Your task to perform on an android device: open device folders in google photos Image 0: 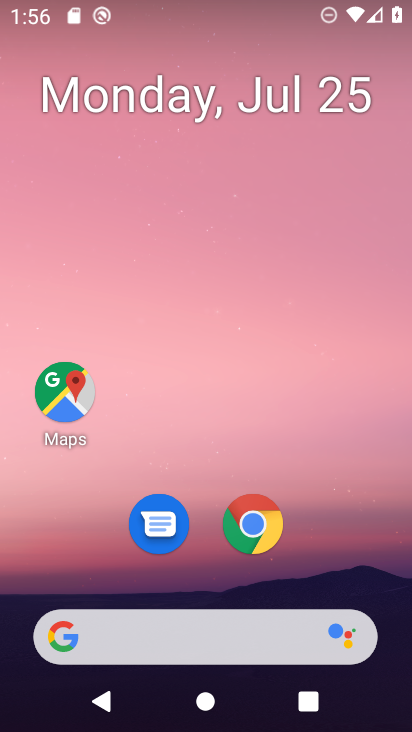
Step 0: drag from (203, 569) to (243, 176)
Your task to perform on an android device: open device folders in google photos Image 1: 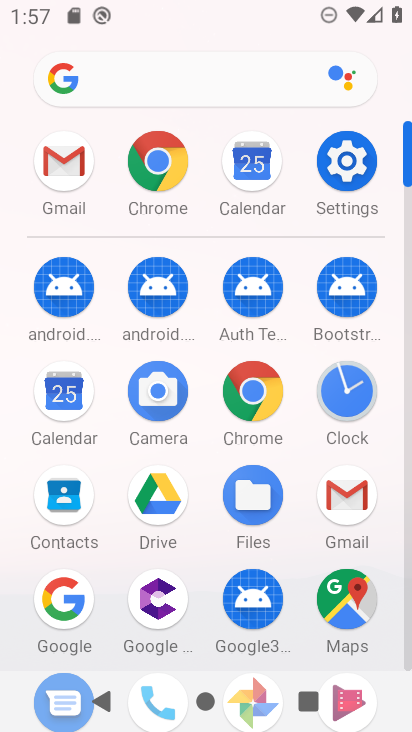
Step 1: drag from (199, 553) to (355, 81)
Your task to perform on an android device: open device folders in google photos Image 2: 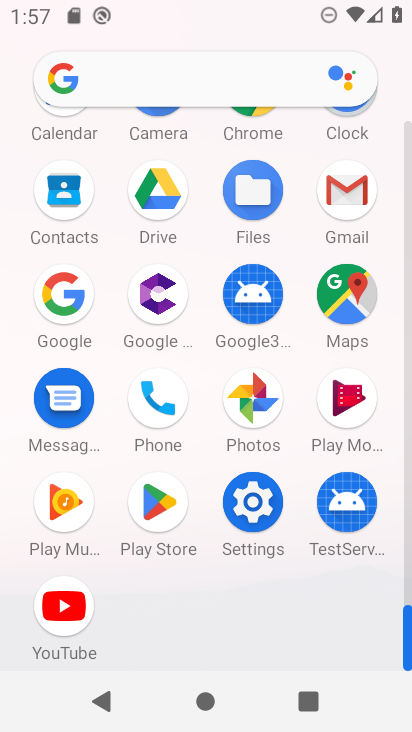
Step 2: click (252, 395)
Your task to perform on an android device: open device folders in google photos Image 3: 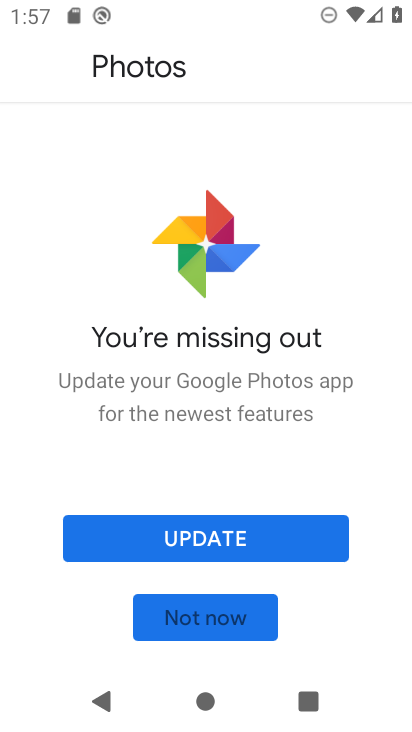
Step 3: click (182, 607)
Your task to perform on an android device: open device folders in google photos Image 4: 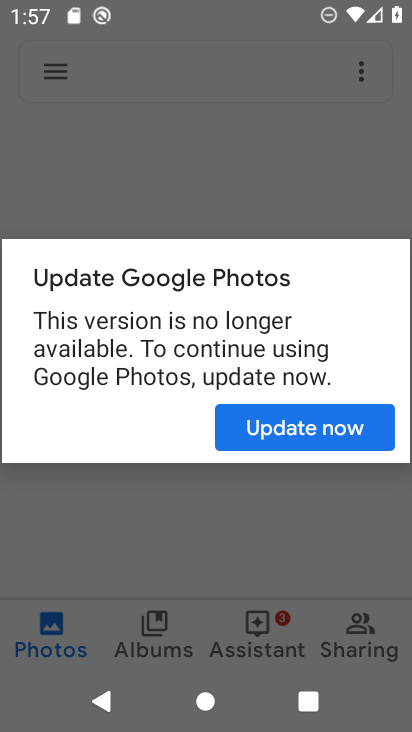
Step 4: click (279, 423)
Your task to perform on an android device: open device folders in google photos Image 5: 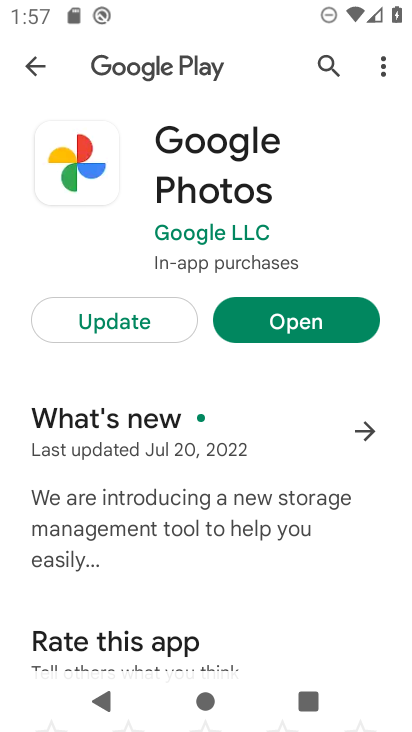
Step 5: click (302, 324)
Your task to perform on an android device: open device folders in google photos Image 6: 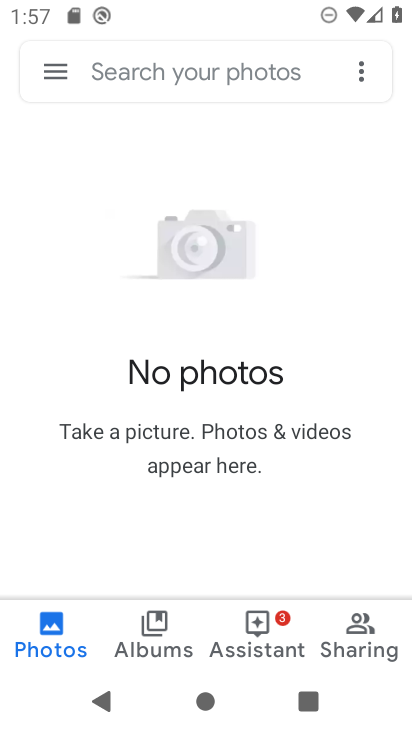
Step 6: click (58, 68)
Your task to perform on an android device: open device folders in google photos Image 7: 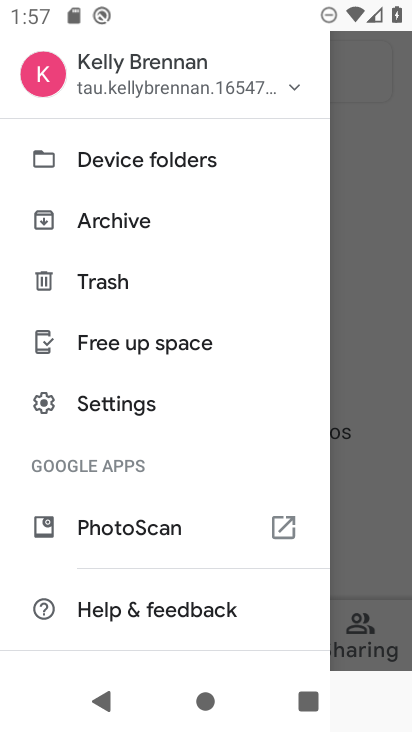
Step 7: click (112, 161)
Your task to perform on an android device: open device folders in google photos Image 8: 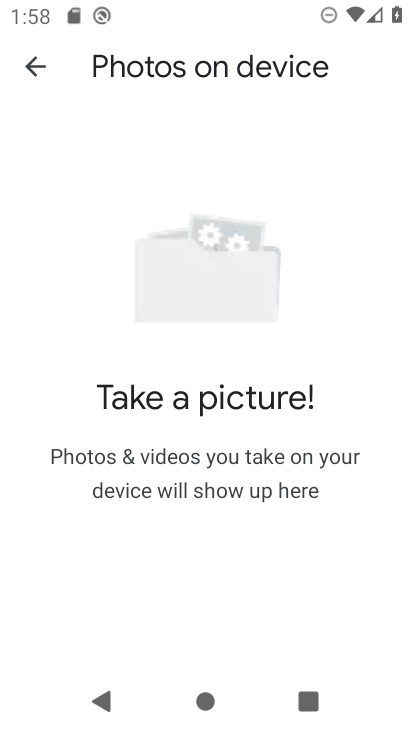
Step 8: task complete